Your task to perform on an android device: turn on data saver in the chrome app Image 0: 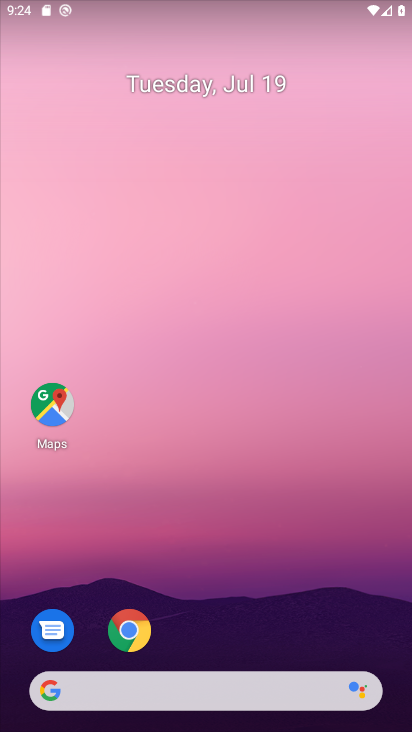
Step 0: click (133, 625)
Your task to perform on an android device: turn on data saver in the chrome app Image 1: 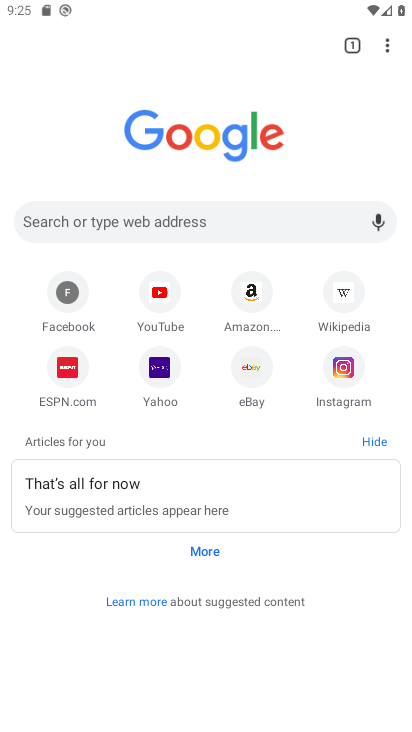
Step 1: click (381, 46)
Your task to perform on an android device: turn on data saver in the chrome app Image 2: 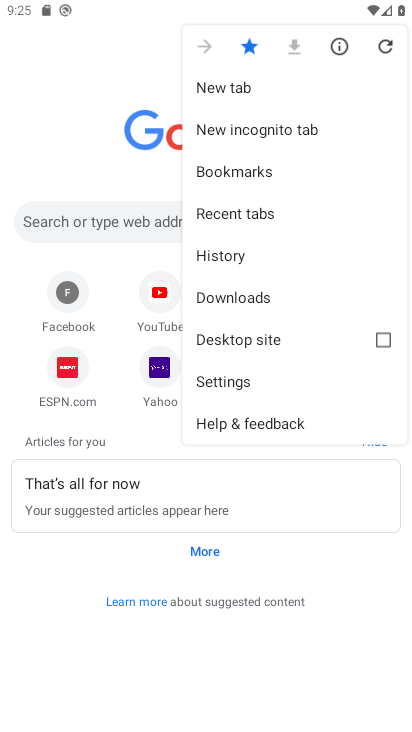
Step 2: click (236, 384)
Your task to perform on an android device: turn on data saver in the chrome app Image 3: 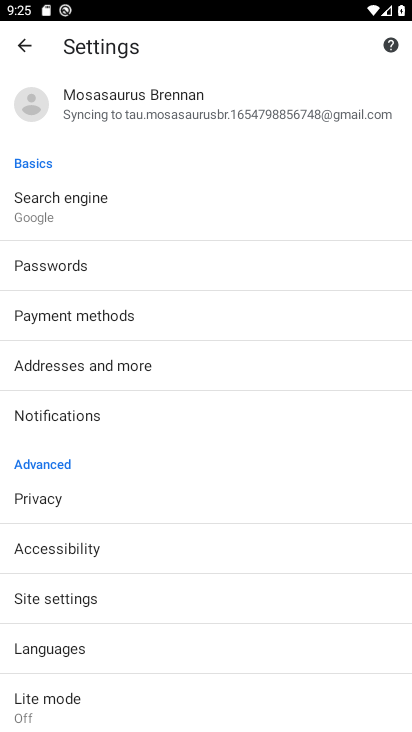
Step 3: click (58, 702)
Your task to perform on an android device: turn on data saver in the chrome app Image 4: 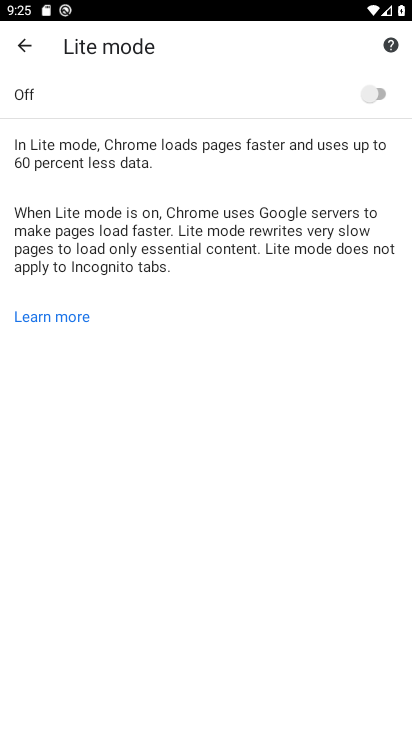
Step 4: click (352, 101)
Your task to perform on an android device: turn on data saver in the chrome app Image 5: 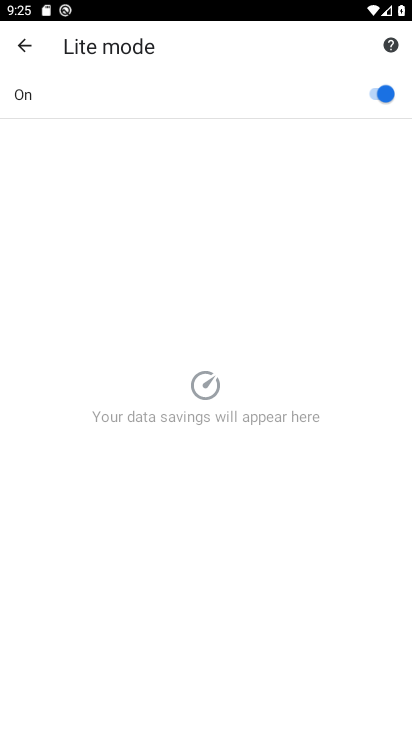
Step 5: task complete